Your task to perform on an android device: Add usb-c to usb-b to the cart on target Image 0: 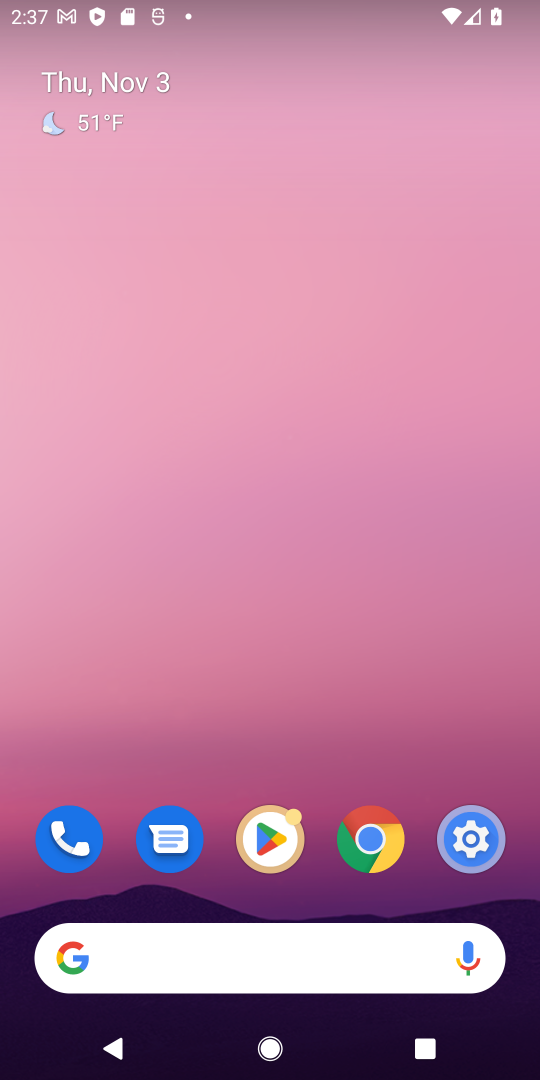
Step 0: click (241, 958)
Your task to perform on an android device: Add usb-c to usb-b to the cart on target Image 1: 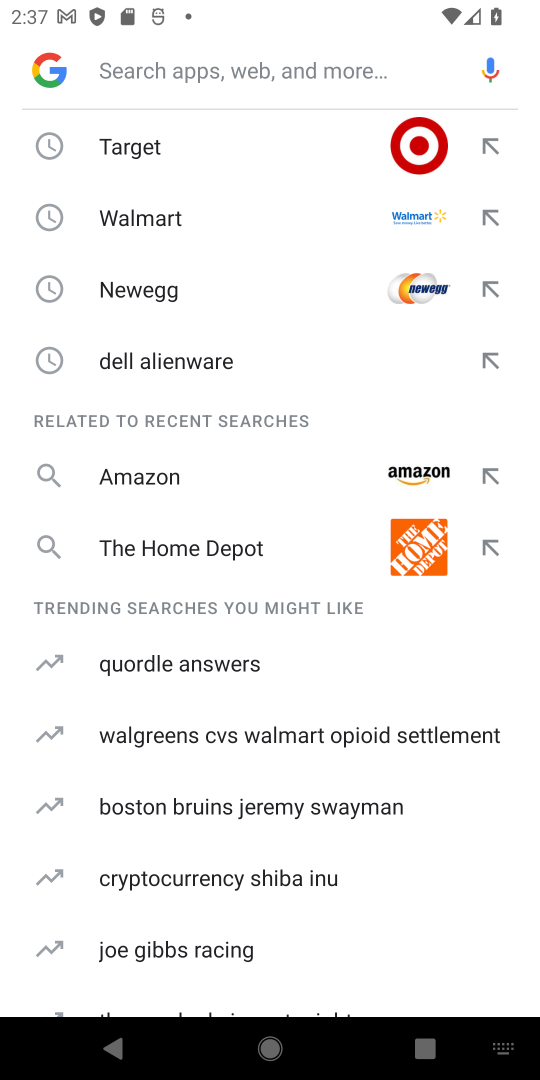
Step 1: click (168, 163)
Your task to perform on an android device: Add usb-c to usb-b to the cart on target Image 2: 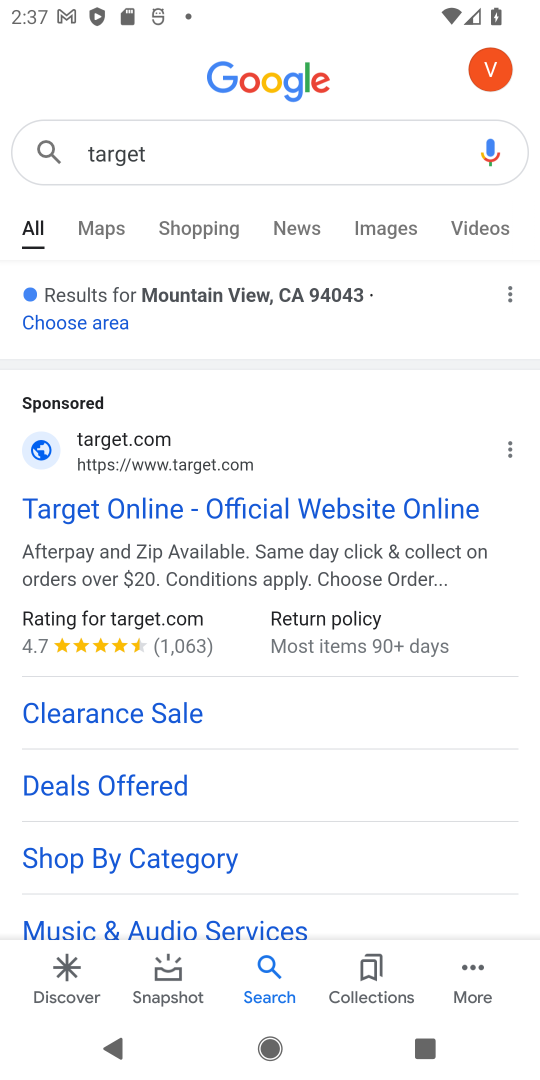
Step 2: click (199, 524)
Your task to perform on an android device: Add usb-c to usb-b to the cart on target Image 3: 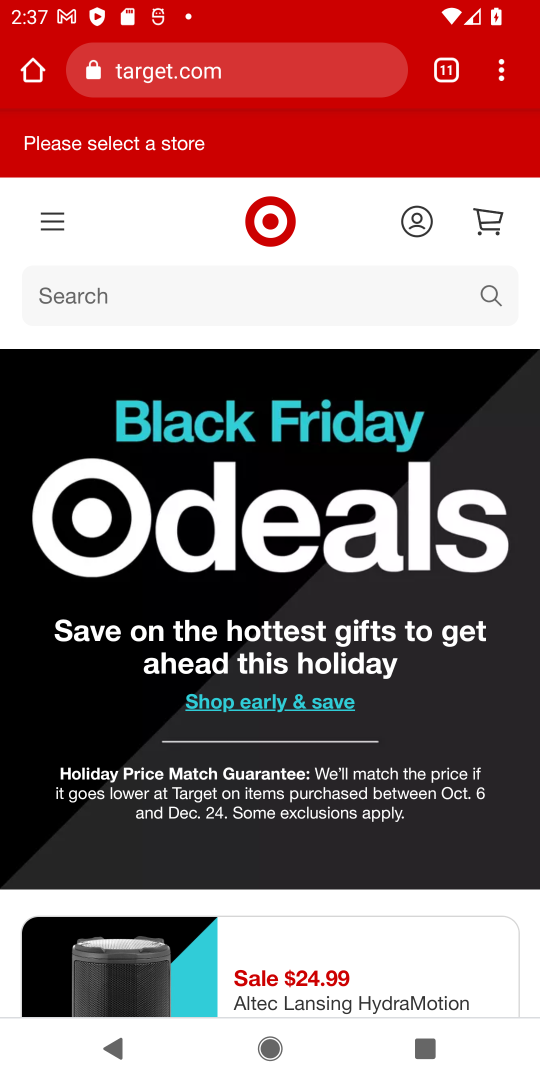
Step 3: click (247, 305)
Your task to perform on an android device: Add usb-c to usb-b to the cart on target Image 4: 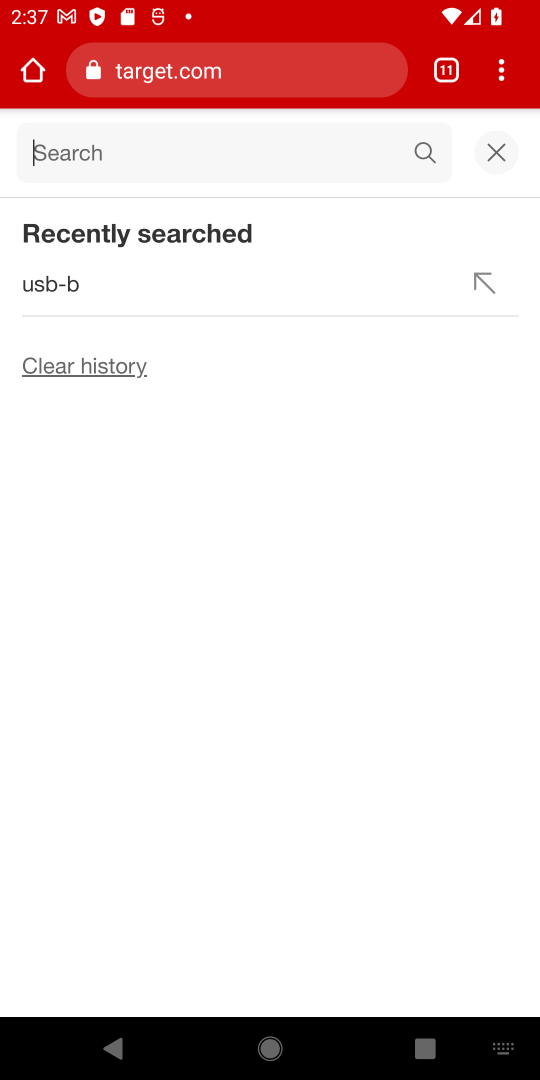
Step 4: type "usb-b to usb-c"
Your task to perform on an android device: Add usb-c to usb-b to the cart on target Image 5: 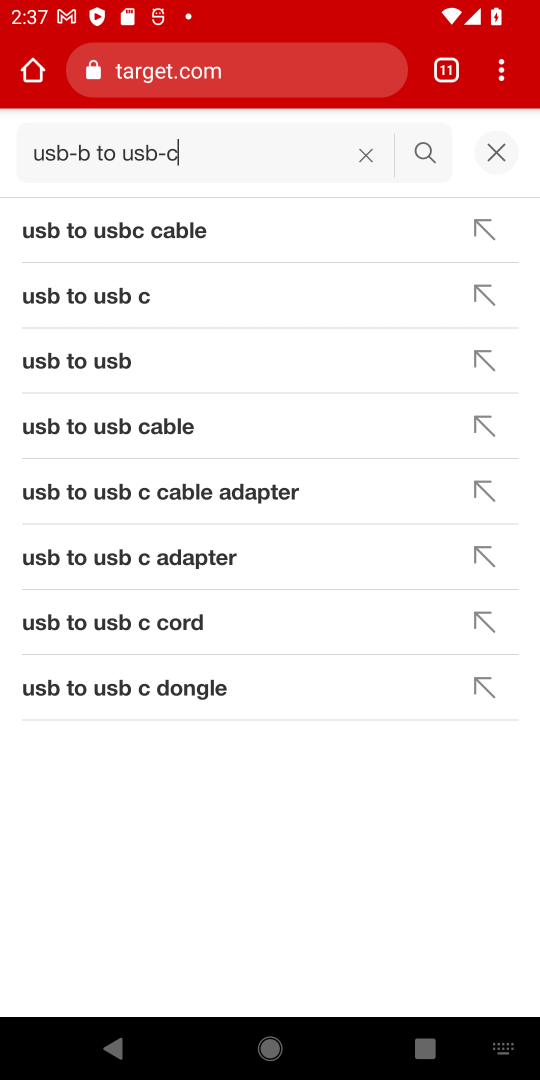
Step 5: click (143, 252)
Your task to perform on an android device: Add usb-c to usb-b to the cart on target Image 6: 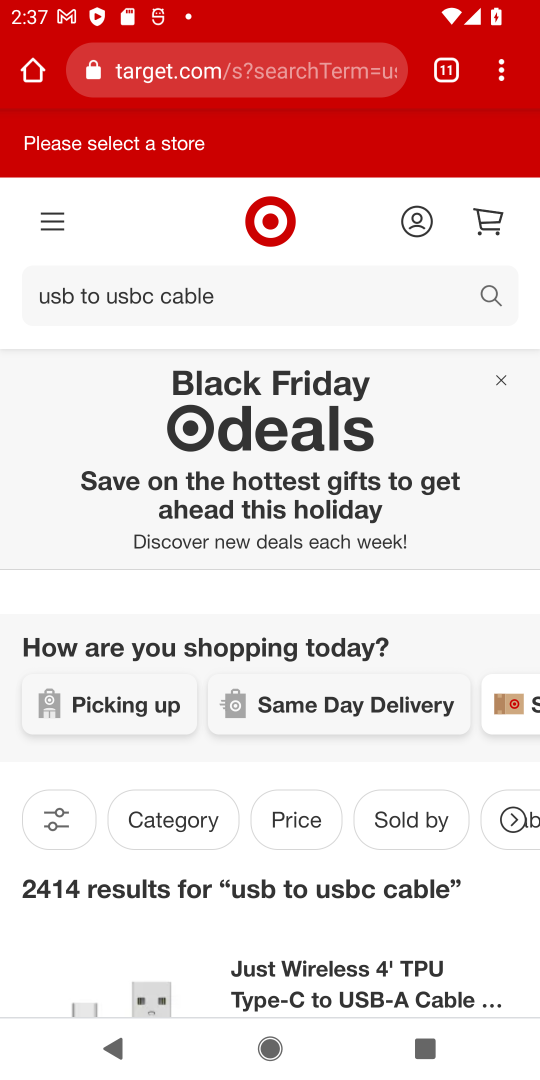
Step 6: click (232, 972)
Your task to perform on an android device: Add usb-c to usb-b to the cart on target Image 7: 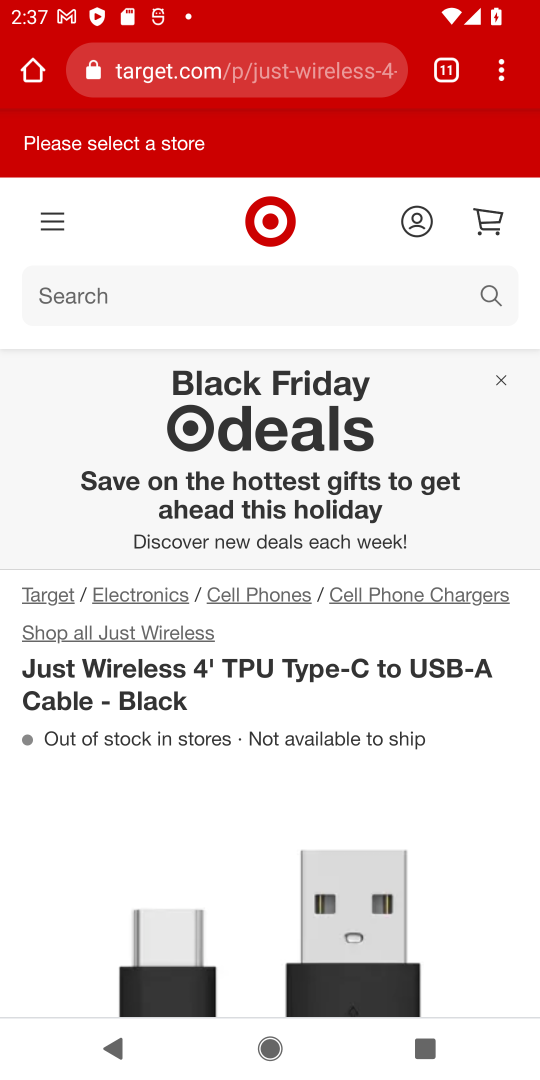
Step 7: drag from (322, 863) to (322, 340)
Your task to perform on an android device: Add usb-c to usb-b to the cart on target Image 8: 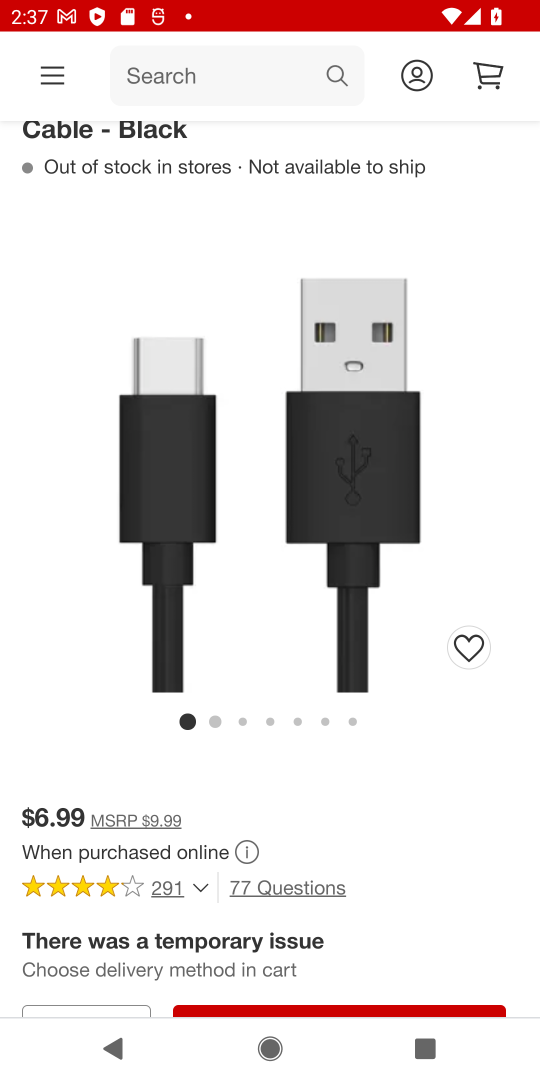
Step 8: drag from (267, 1003) to (244, 464)
Your task to perform on an android device: Add usb-c to usb-b to the cart on target Image 9: 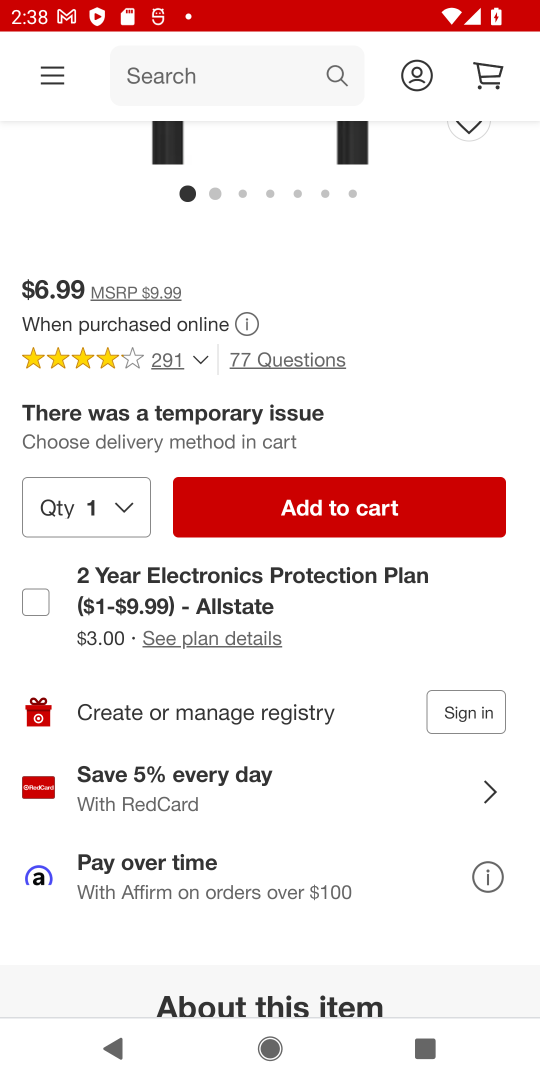
Step 9: click (296, 528)
Your task to perform on an android device: Add usb-c to usb-b to the cart on target Image 10: 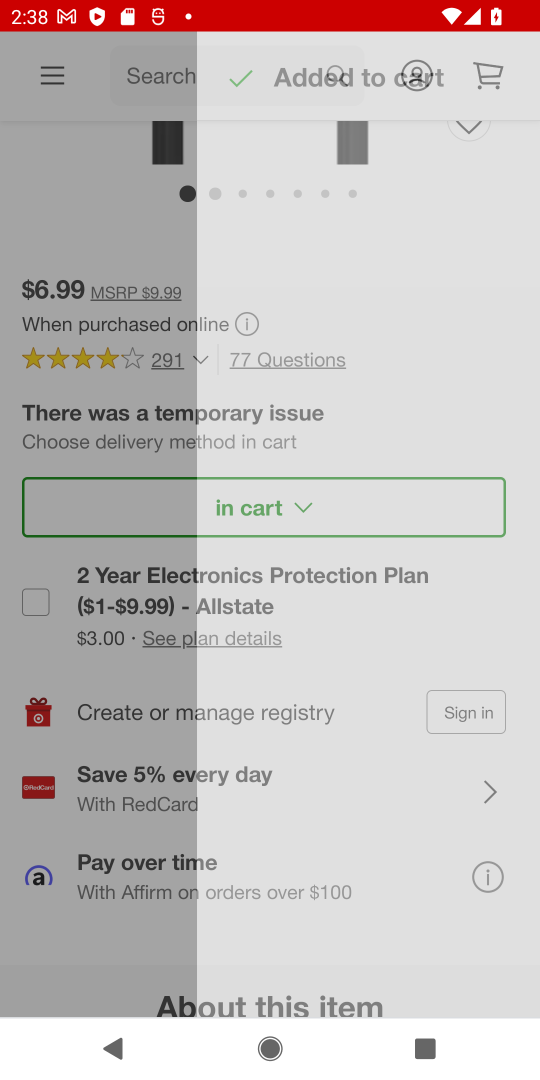
Step 10: task complete